Your task to perform on an android device: Search for vegetarian restaurants on Maps Image 0: 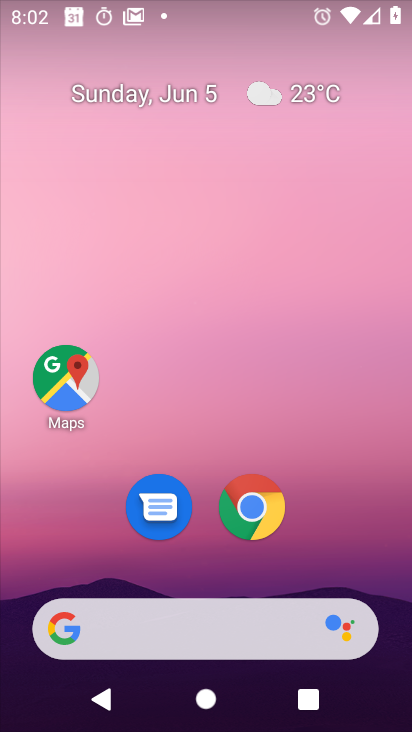
Step 0: drag from (323, 648) to (219, 140)
Your task to perform on an android device: Search for vegetarian restaurants on Maps Image 1: 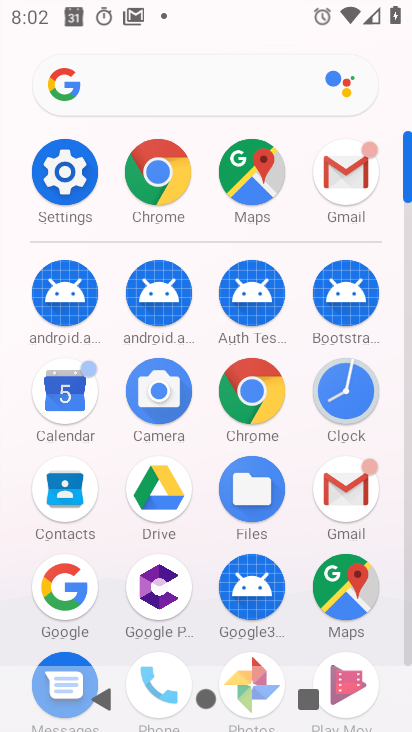
Step 1: click (364, 567)
Your task to perform on an android device: Search for vegetarian restaurants on Maps Image 2: 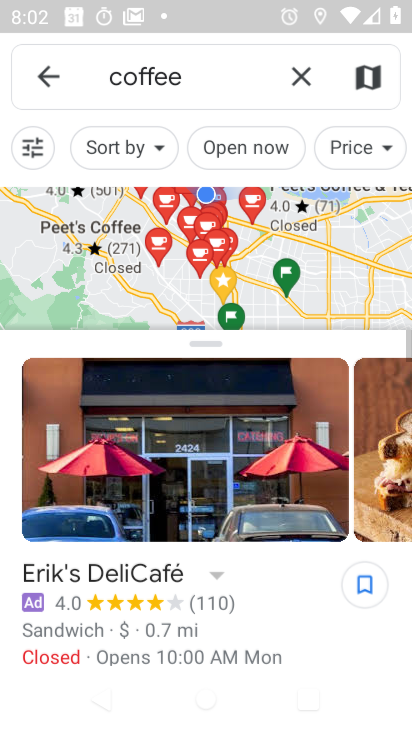
Step 2: click (297, 80)
Your task to perform on an android device: Search for vegetarian restaurants on Maps Image 3: 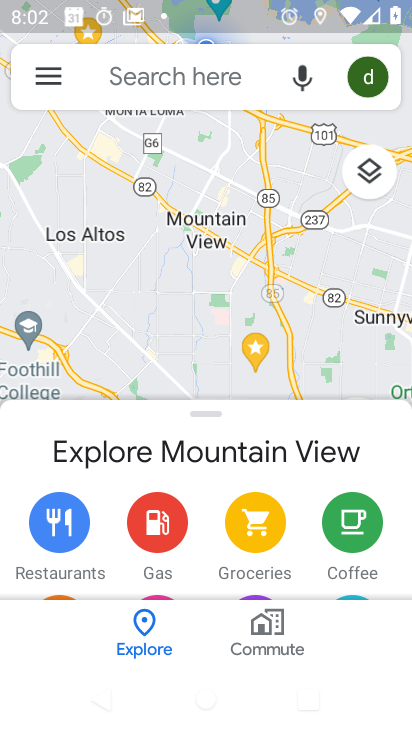
Step 3: click (166, 85)
Your task to perform on an android device: Search for vegetarian restaurants on Maps Image 4: 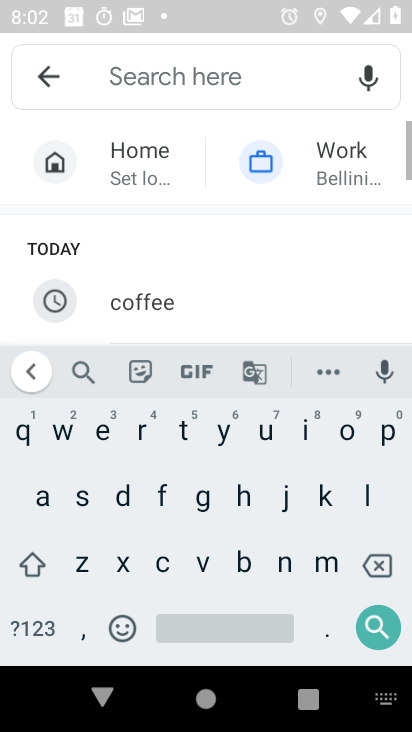
Step 4: click (213, 557)
Your task to perform on an android device: Search for vegetarian restaurants on Maps Image 5: 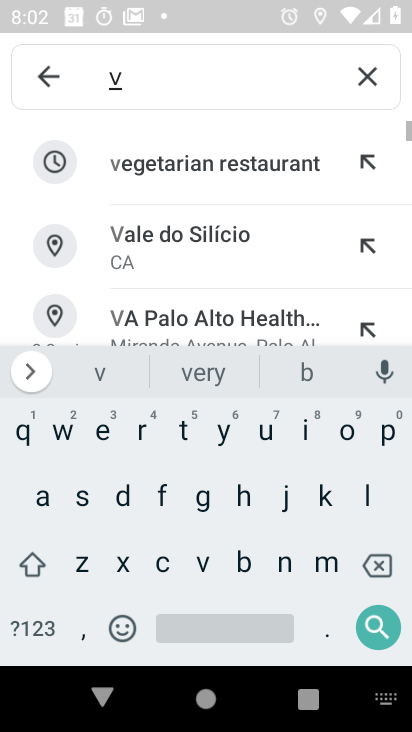
Step 5: click (223, 166)
Your task to perform on an android device: Search for vegetarian restaurants on Maps Image 6: 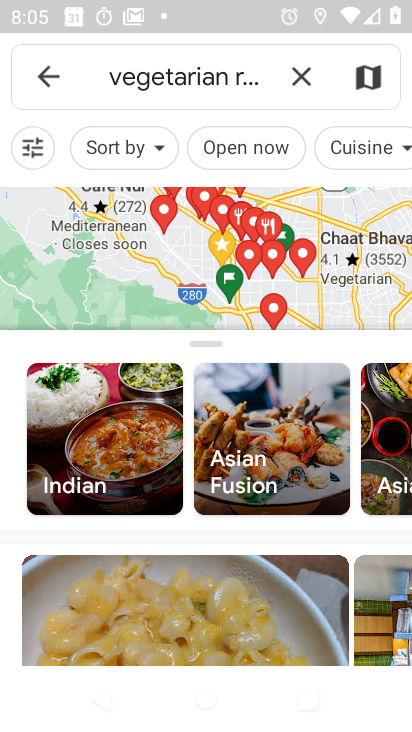
Step 6: task complete